Your task to perform on an android device: empty trash in google photos Image 0: 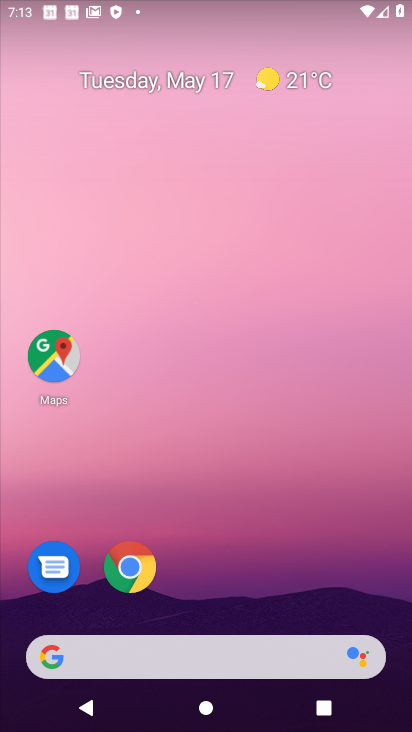
Step 0: drag from (301, 537) to (198, 46)
Your task to perform on an android device: empty trash in google photos Image 1: 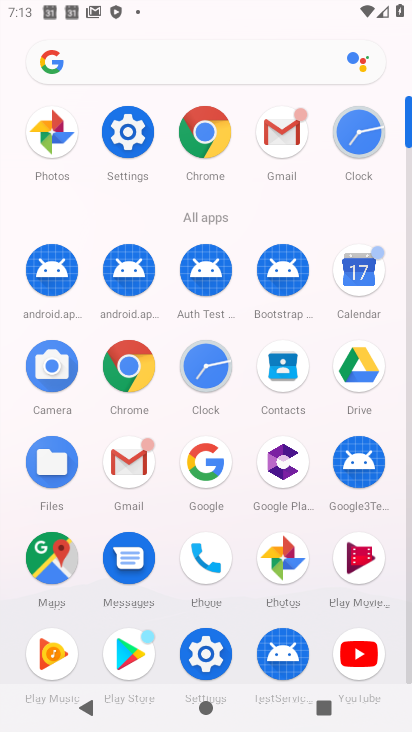
Step 1: click (283, 563)
Your task to perform on an android device: empty trash in google photos Image 2: 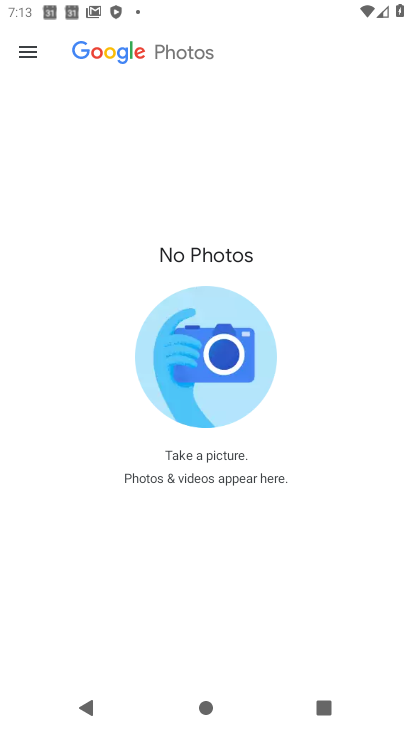
Step 2: click (22, 48)
Your task to perform on an android device: empty trash in google photos Image 3: 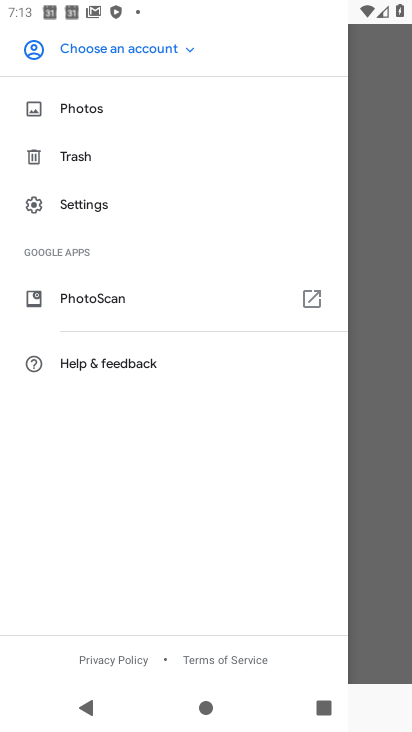
Step 3: click (77, 192)
Your task to perform on an android device: empty trash in google photos Image 4: 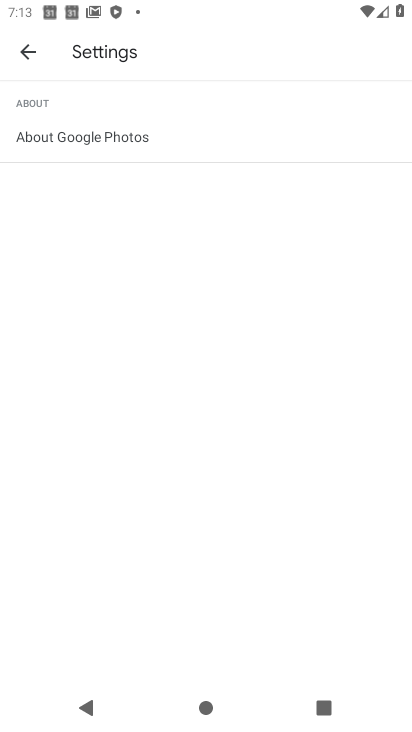
Step 4: click (27, 47)
Your task to perform on an android device: empty trash in google photos Image 5: 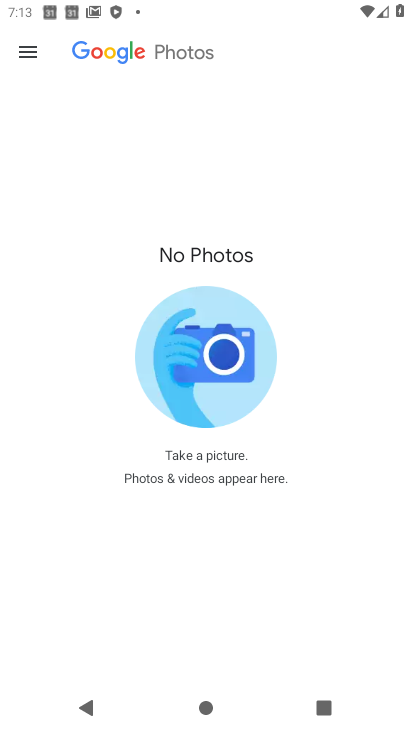
Step 5: click (28, 48)
Your task to perform on an android device: empty trash in google photos Image 6: 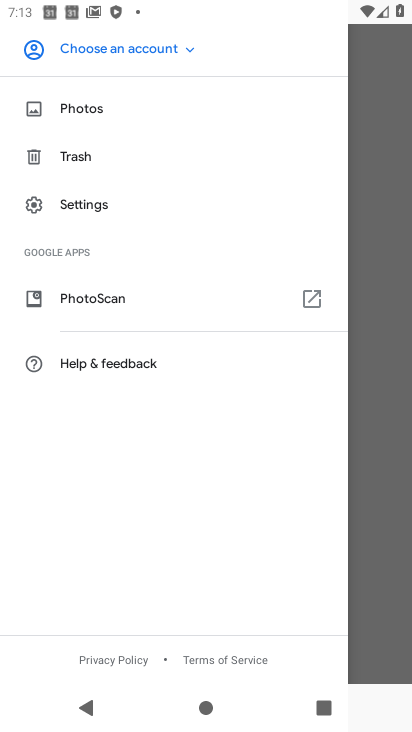
Step 6: click (66, 152)
Your task to perform on an android device: empty trash in google photos Image 7: 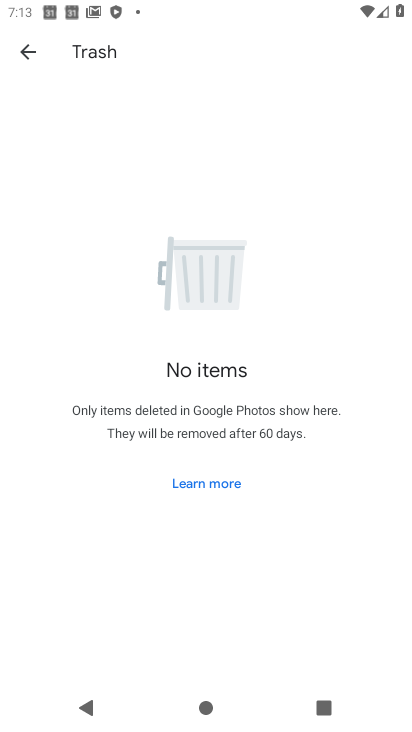
Step 7: task complete